Your task to perform on an android device: Open calendar and show me the fourth week of next month Image 0: 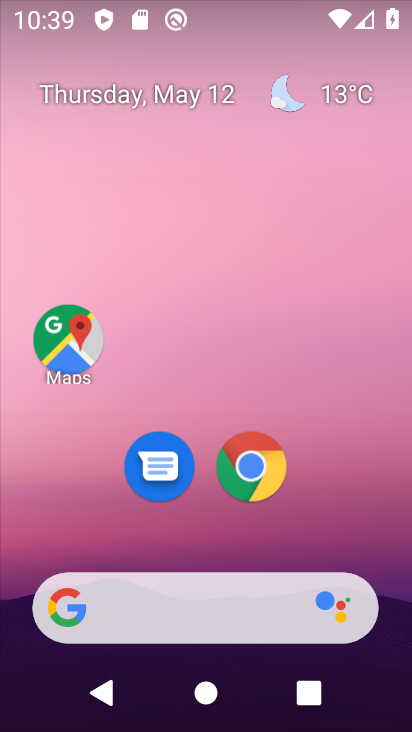
Step 0: drag from (353, 512) to (356, 136)
Your task to perform on an android device: Open calendar and show me the fourth week of next month Image 1: 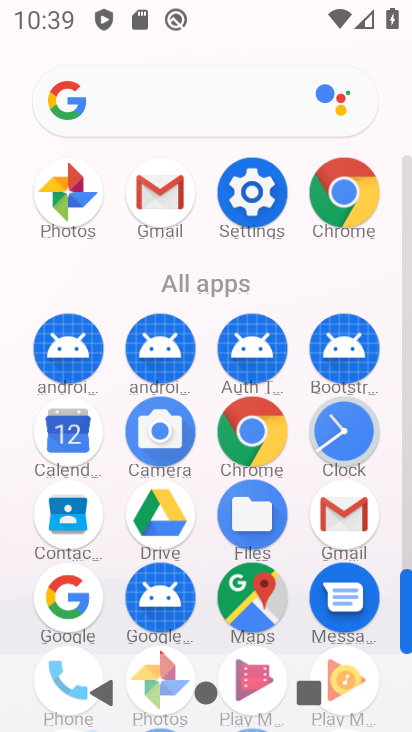
Step 1: click (85, 418)
Your task to perform on an android device: Open calendar and show me the fourth week of next month Image 2: 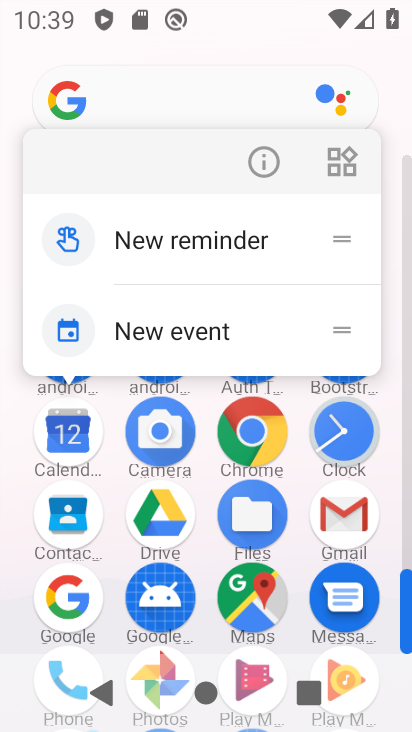
Step 2: click (78, 420)
Your task to perform on an android device: Open calendar and show me the fourth week of next month Image 3: 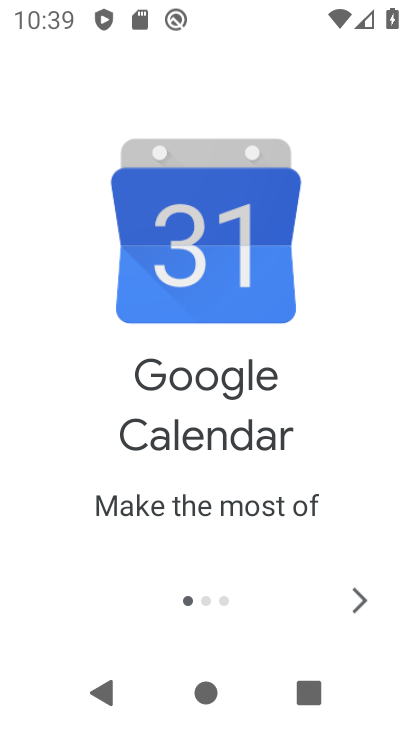
Step 3: click (363, 605)
Your task to perform on an android device: Open calendar and show me the fourth week of next month Image 4: 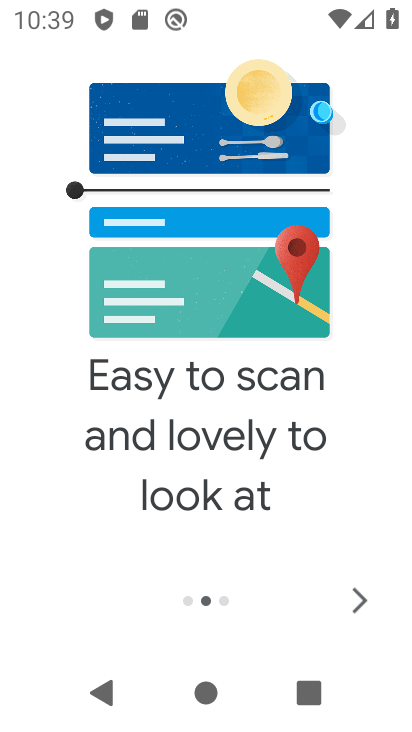
Step 4: click (364, 602)
Your task to perform on an android device: Open calendar and show me the fourth week of next month Image 5: 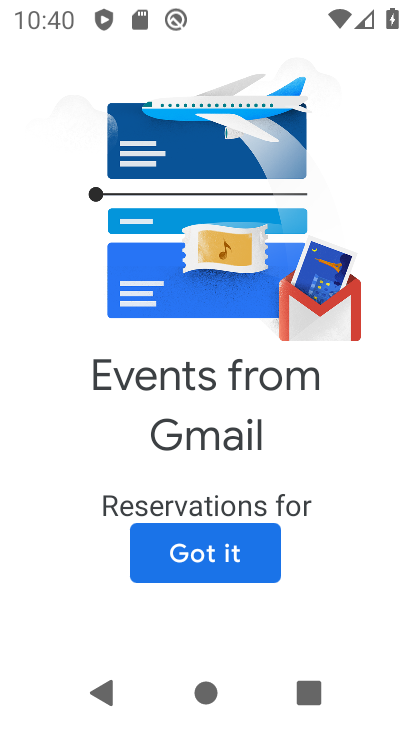
Step 5: click (216, 553)
Your task to perform on an android device: Open calendar and show me the fourth week of next month Image 6: 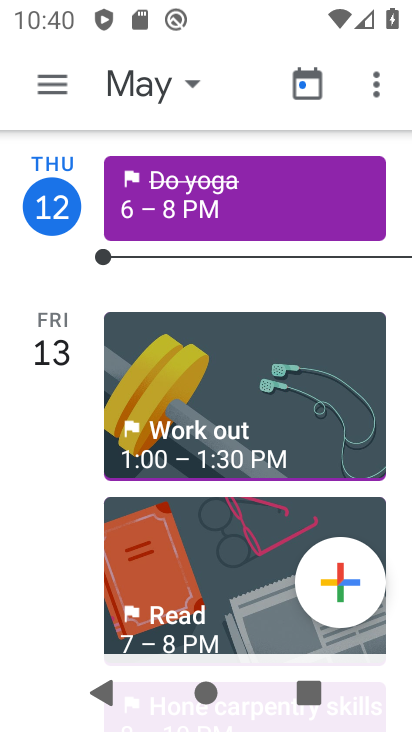
Step 6: click (139, 79)
Your task to perform on an android device: Open calendar and show me the fourth week of next month Image 7: 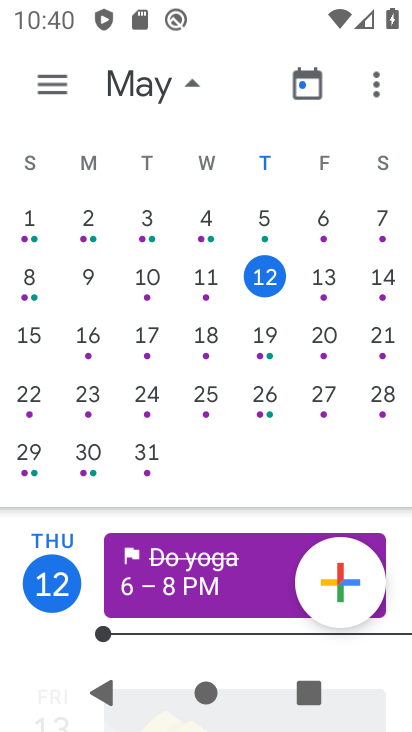
Step 7: drag from (318, 196) to (6, 213)
Your task to perform on an android device: Open calendar and show me the fourth week of next month Image 8: 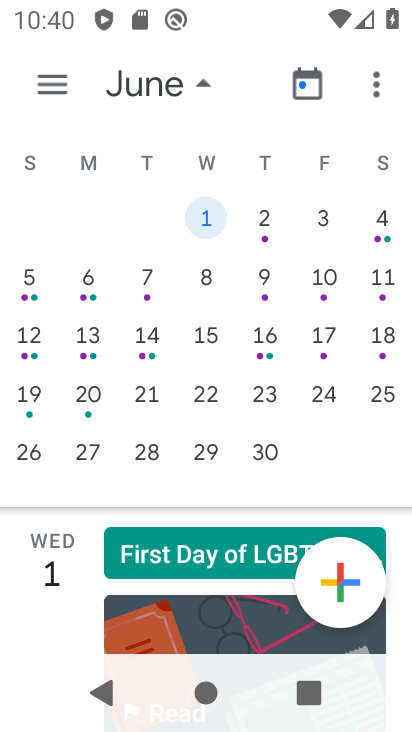
Step 8: click (23, 399)
Your task to perform on an android device: Open calendar and show me the fourth week of next month Image 9: 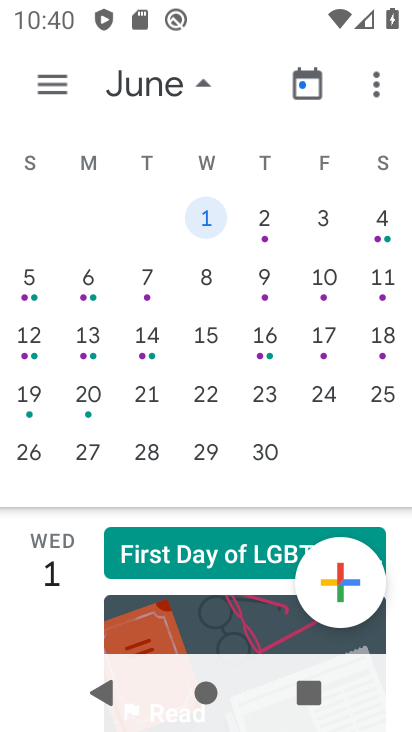
Step 9: click (30, 399)
Your task to perform on an android device: Open calendar and show me the fourth week of next month Image 10: 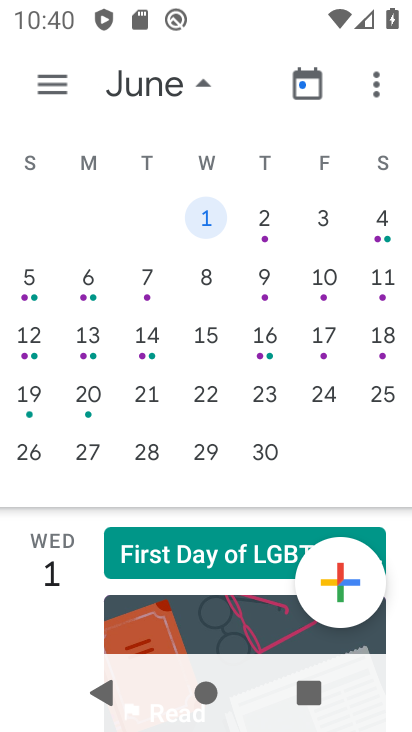
Step 10: click (30, 399)
Your task to perform on an android device: Open calendar and show me the fourth week of next month Image 11: 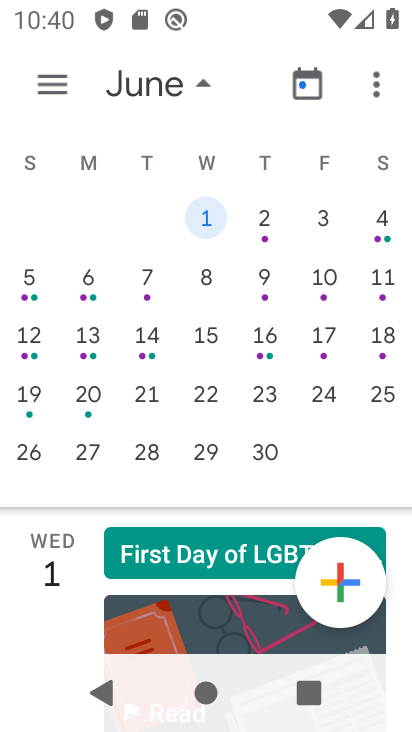
Step 11: click (37, 394)
Your task to perform on an android device: Open calendar and show me the fourth week of next month Image 12: 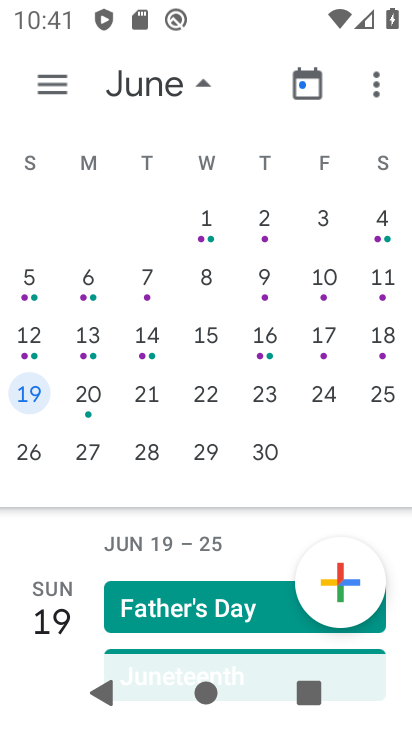
Step 12: task complete